Your task to perform on an android device: open chrome and create a bookmark for the current page Image 0: 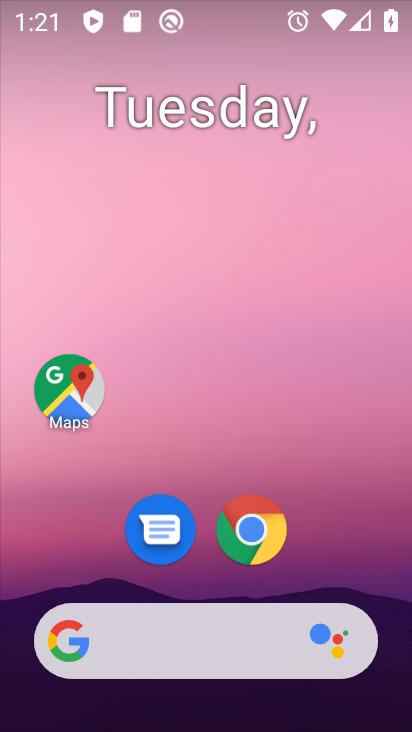
Step 0: drag from (391, 609) to (241, 74)
Your task to perform on an android device: open chrome and create a bookmark for the current page Image 1: 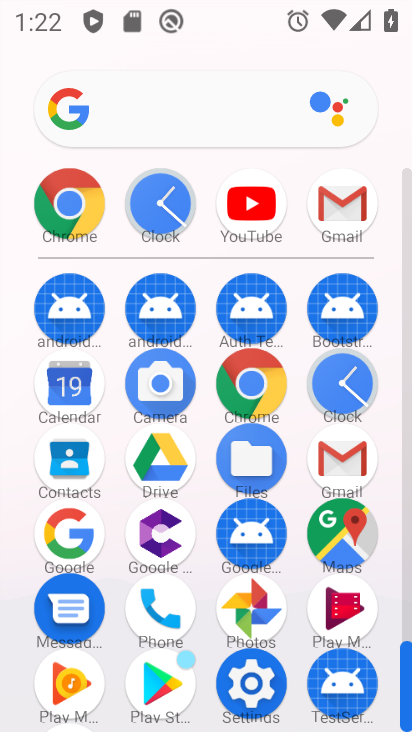
Step 1: click (79, 228)
Your task to perform on an android device: open chrome and create a bookmark for the current page Image 2: 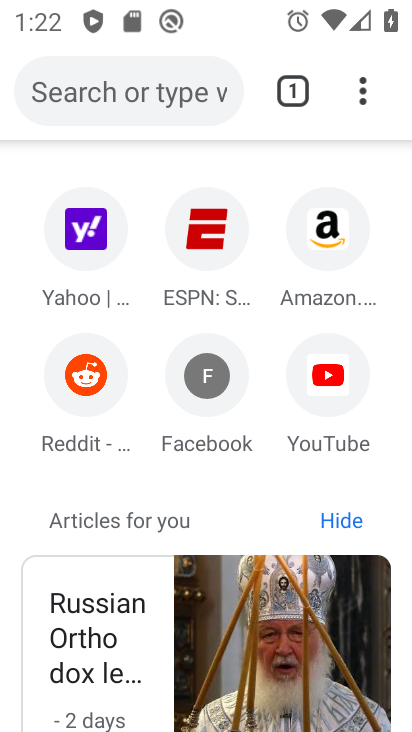
Step 2: drag from (78, 673) to (181, 139)
Your task to perform on an android device: open chrome and create a bookmark for the current page Image 3: 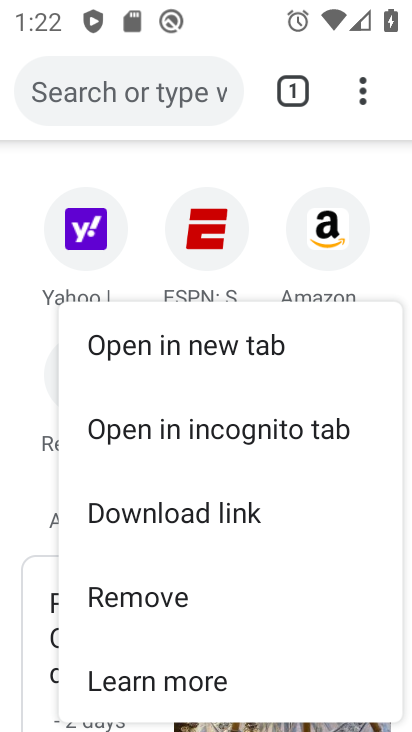
Step 3: click (12, 265)
Your task to perform on an android device: open chrome and create a bookmark for the current page Image 4: 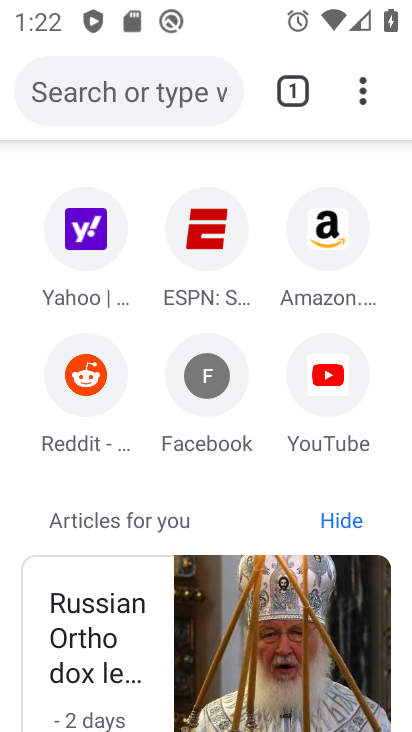
Step 4: drag from (49, 607) to (153, 52)
Your task to perform on an android device: open chrome and create a bookmark for the current page Image 5: 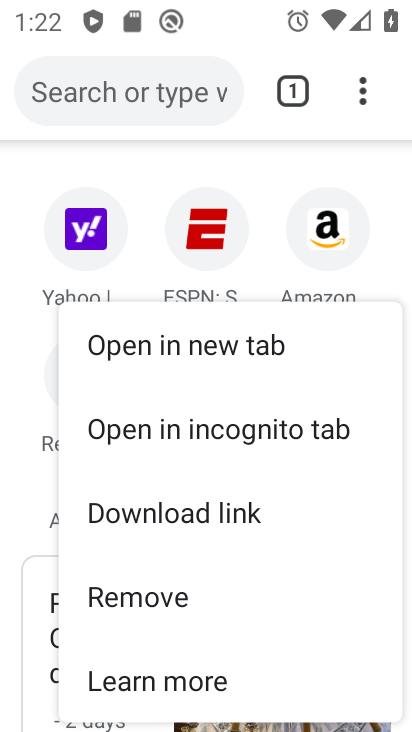
Step 5: click (34, 399)
Your task to perform on an android device: open chrome and create a bookmark for the current page Image 6: 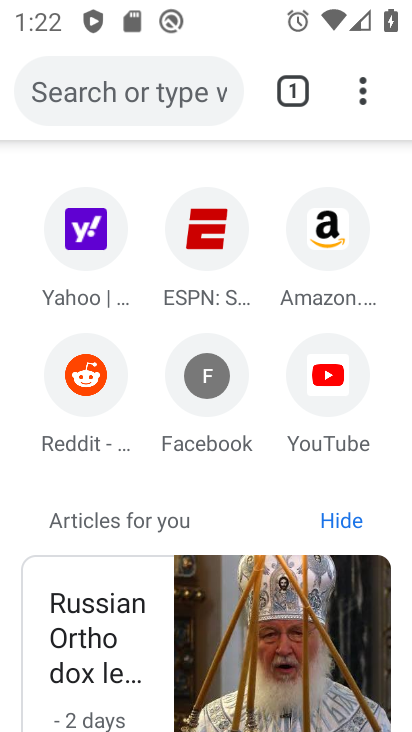
Step 6: drag from (219, 627) to (232, 99)
Your task to perform on an android device: open chrome and create a bookmark for the current page Image 7: 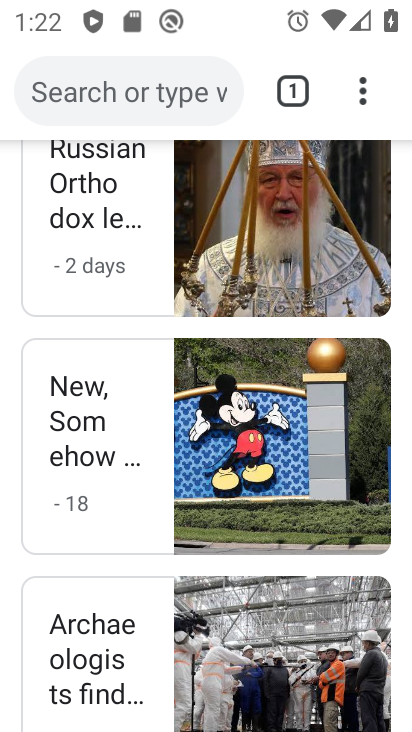
Step 7: click (174, 623)
Your task to perform on an android device: open chrome and create a bookmark for the current page Image 8: 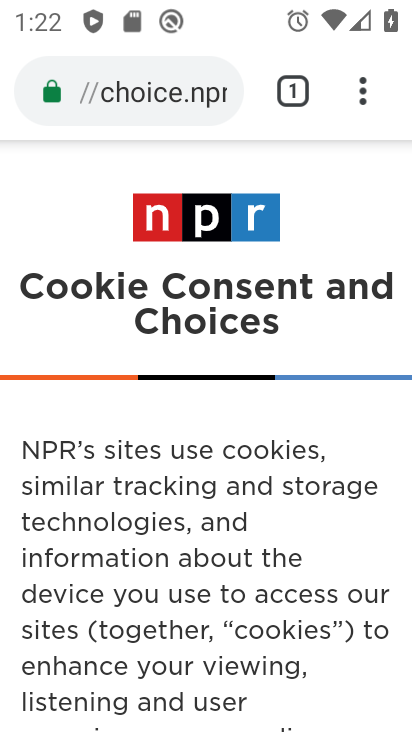
Step 8: click (364, 85)
Your task to perform on an android device: open chrome and create a bookmark for the current page Image 9: 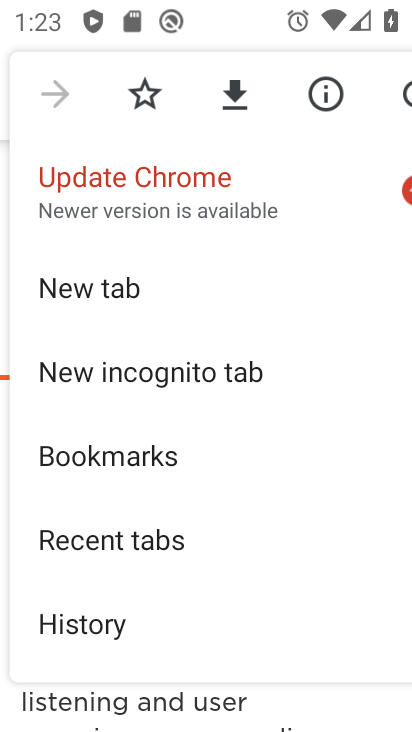
Step 9: click (142, 91)
Your task to perform on an android device: open chrome and create a bookmark for the current page Image 10: 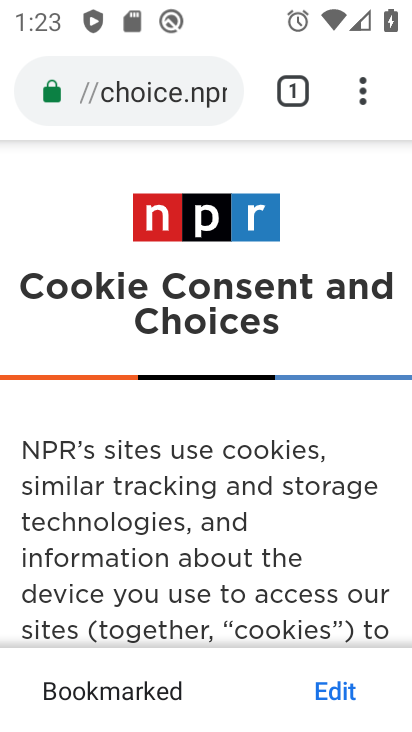
Step 10: task complete